Your task to perform on an android device: change your default location settings in chrome Image 0: 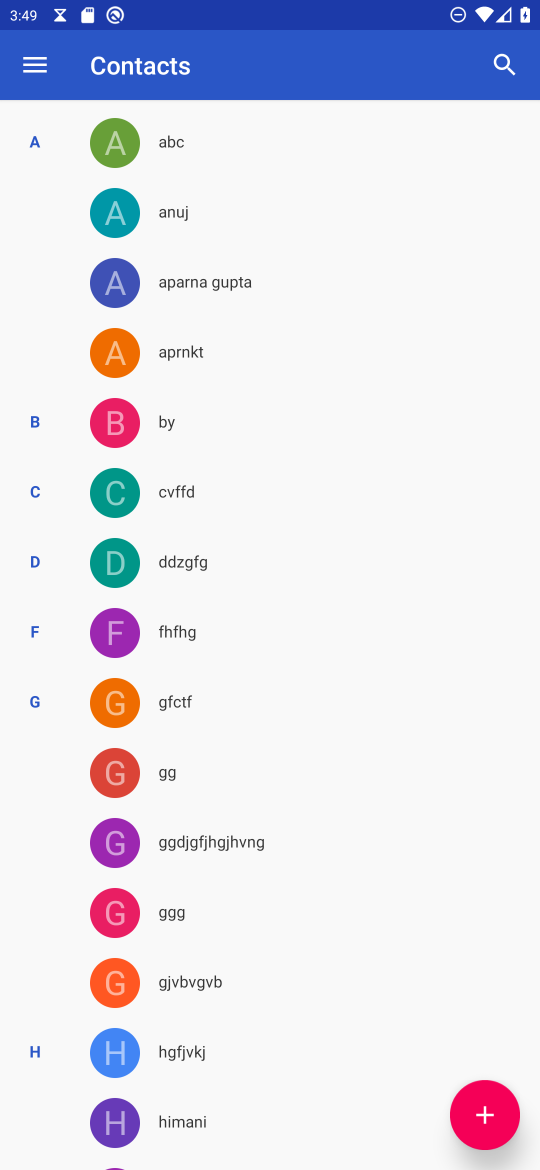
Step 0: press home button
Your task to perform on an android device: change your default location settings in chrome Image 1: 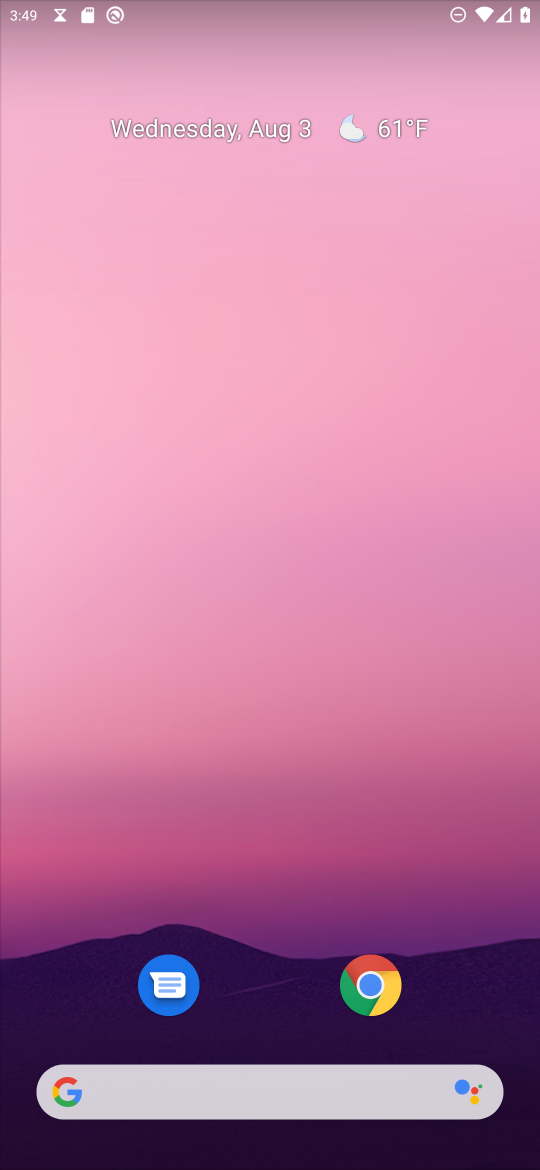
Step 1: click (377, 971)
Your task to perform on an android device: change your default location settings in chrome Image 2: 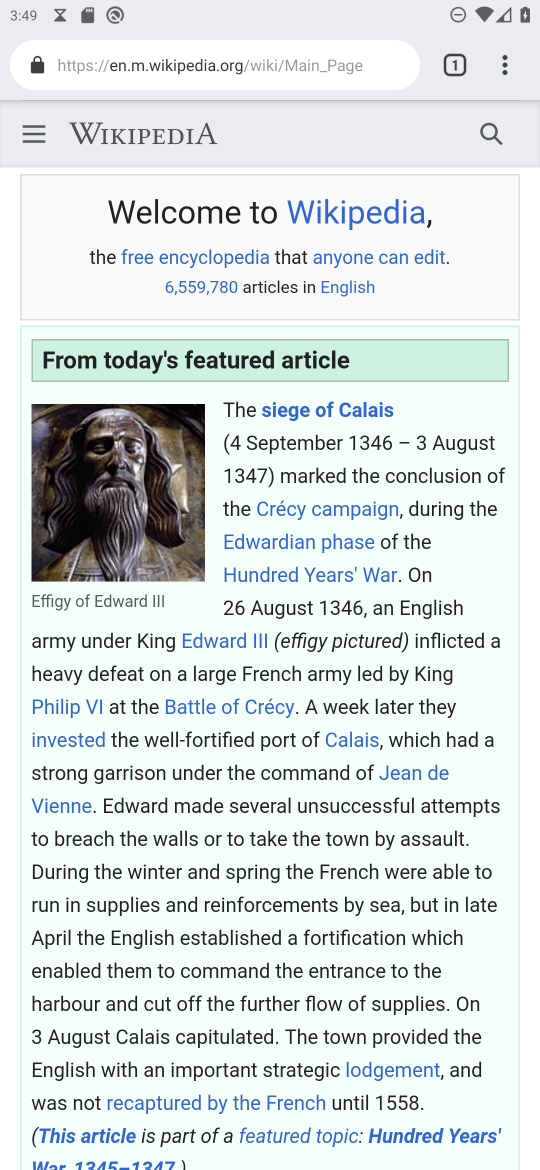
Step 2: click (499, 67)
Your task to perform on an android device: change your default location settings in chrome Image 3: 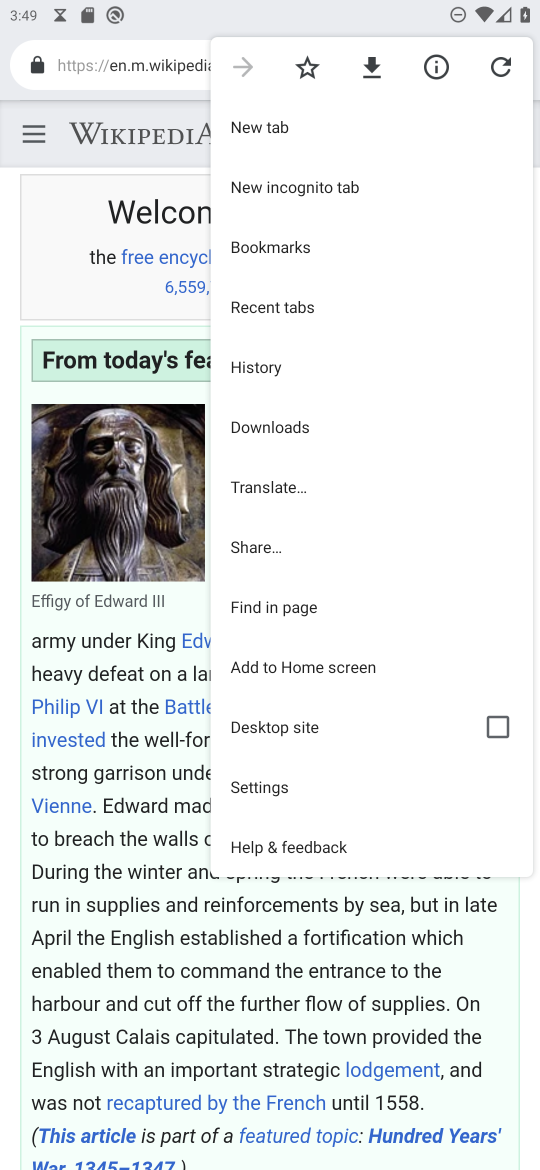
Step 3: click (252, 790)
Your task to perform on an android device: change your default location settings in chrome Image 4: 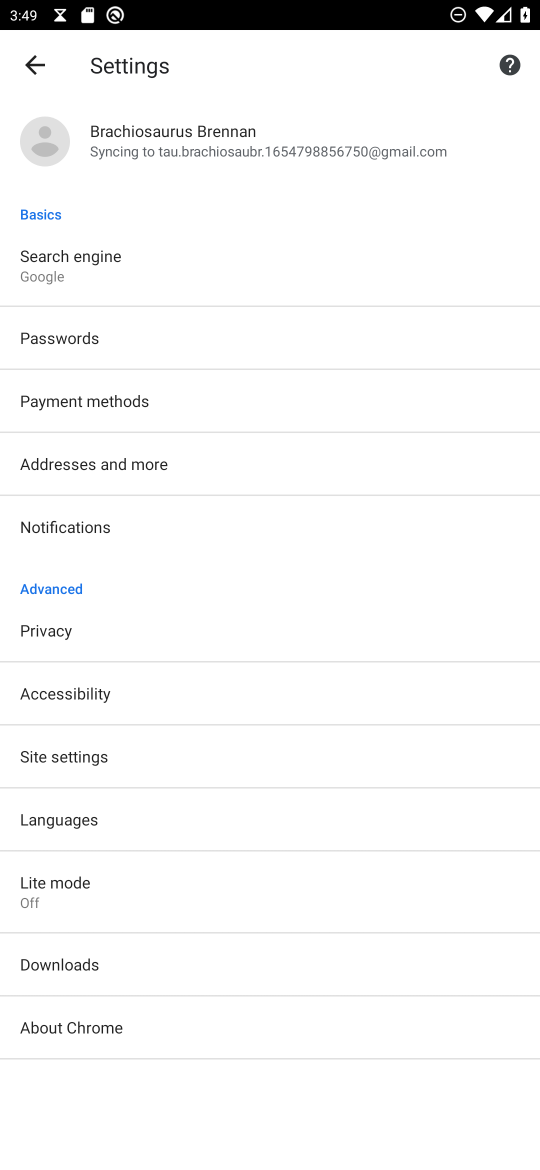
Step 4: click (91, 739)
Your task to perform on an android device: change your default location settings in chrome Image 5: 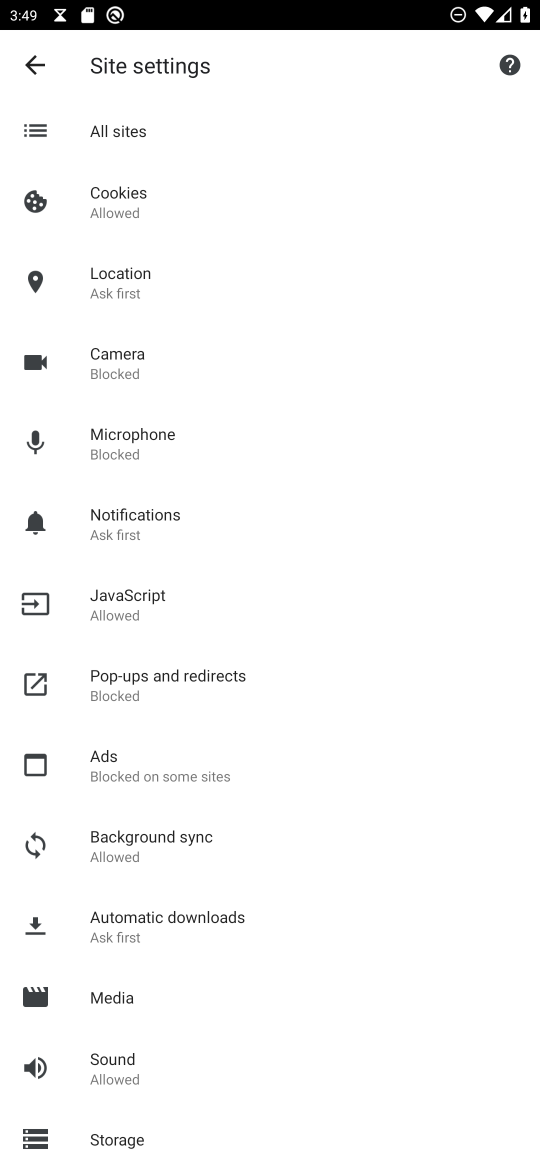
Step 5: click (147, 292)
Your task to perform on an android device: change your default location settings in chrome Image 6: 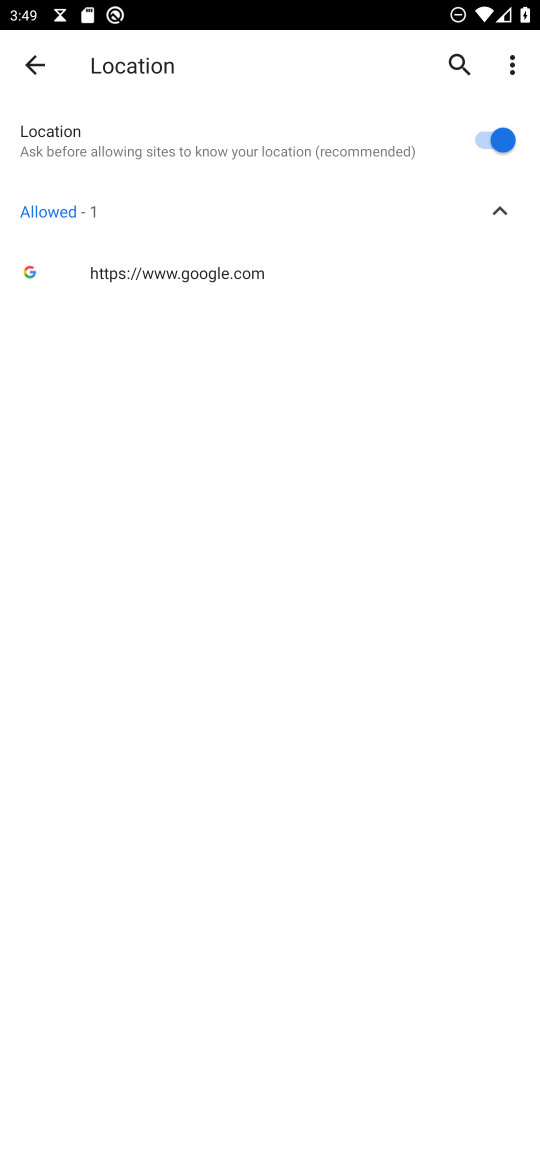
Step 6: click (495, 159)
Your task to perform on an android device: change your default location settings in chrome Image 7: 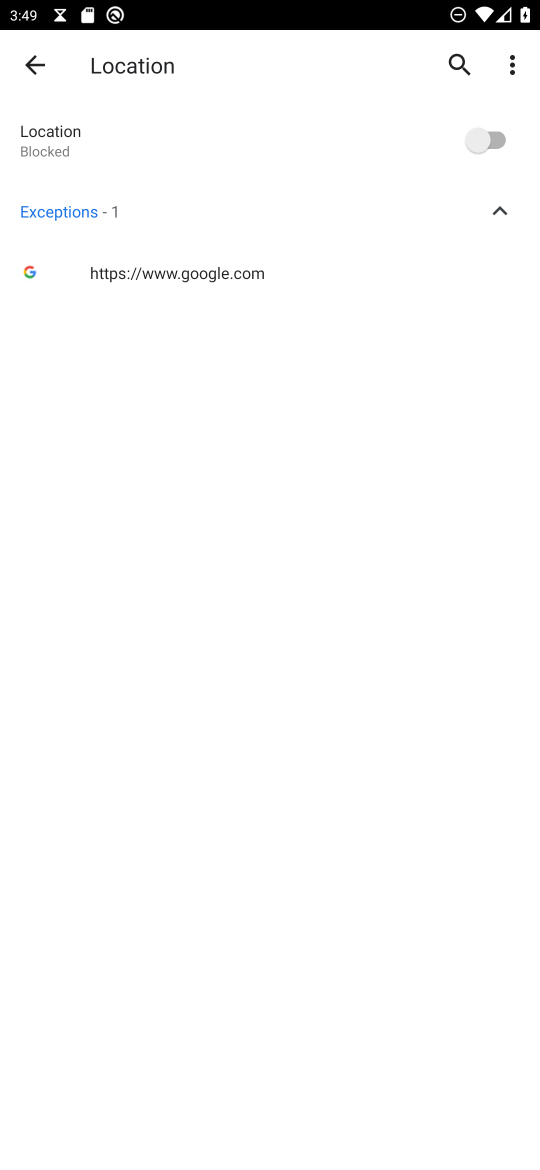
Step 7: task complete